Your task to perform on an android device: Show me popular games on the Play Store Image 0: 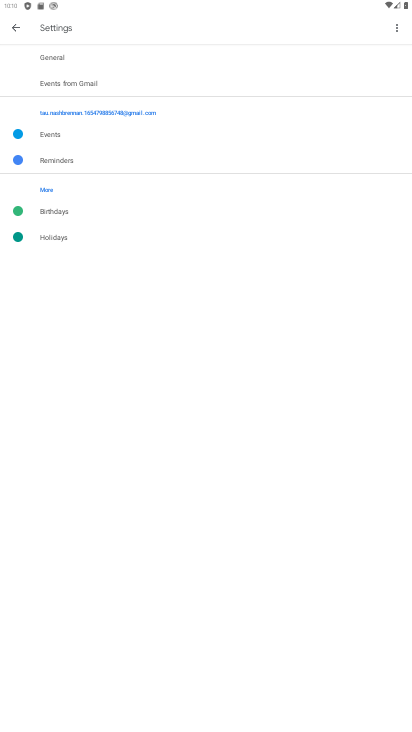
Step 0: press home button
Your task to perform on an android device: Show me popular games on the Play Store Image 1: 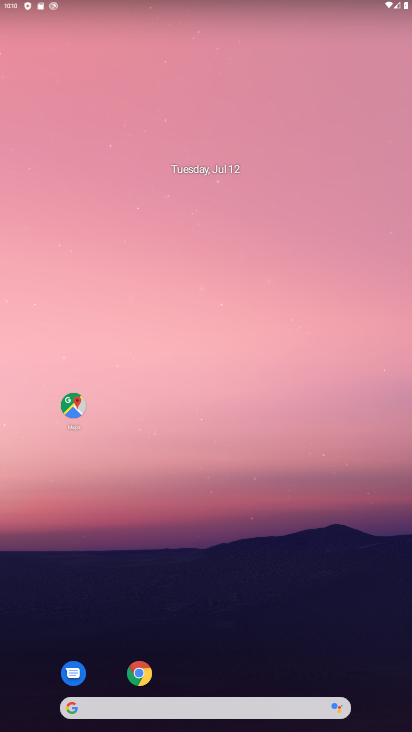
Step 1: drag from (285, 638) to (227, 147)
Your task to perform on an android device: Show me popular games on the Play Store Image 2: 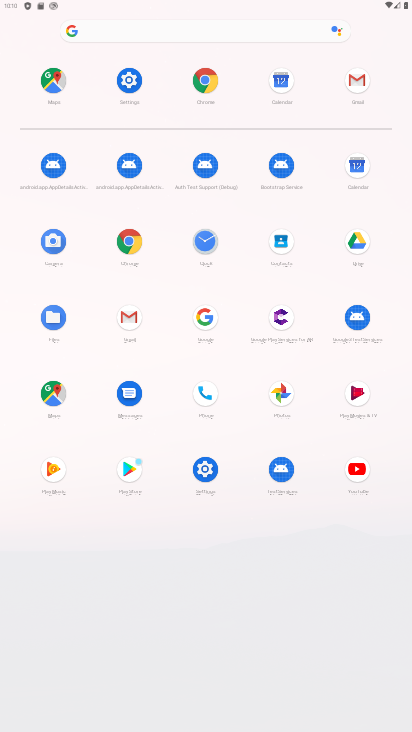
Step 2: click (129, 460)
Your task to perform on an android device: Show me popular games on the Play Store Image 3: 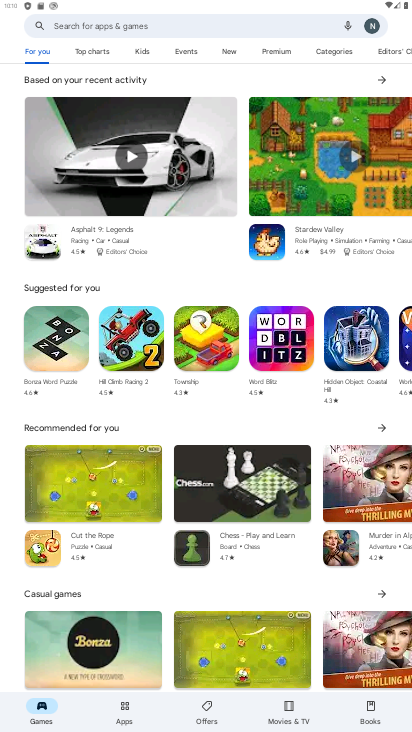
Step 3: task complete